Your task to perform on an android device: find photos in the google photos app Image 0: 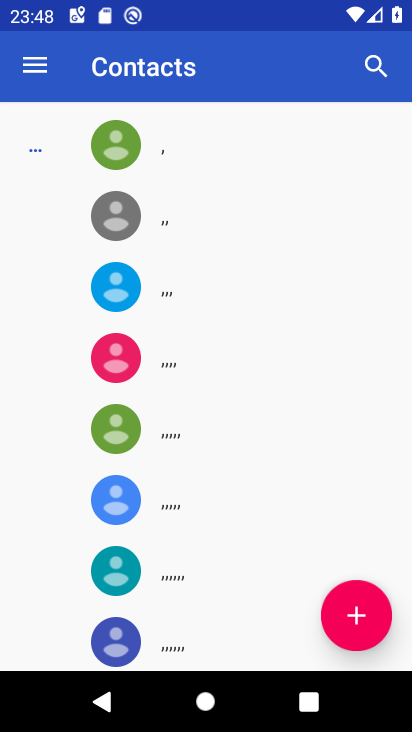
Step 0: press home button
Your task to perform on an android device: find photos in the google photos app Image 1: 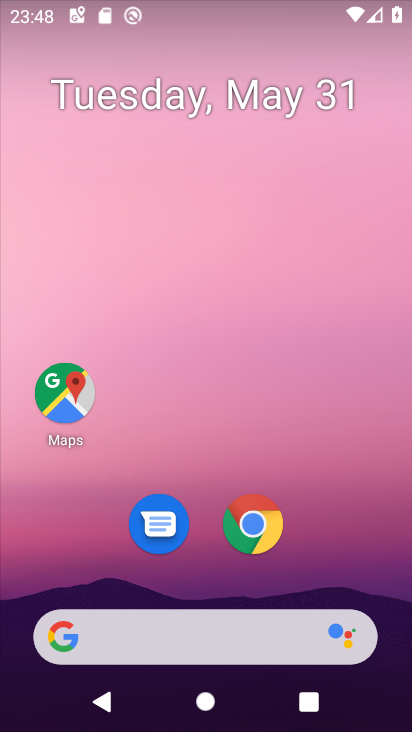
Step 1: drag from (346, 573) to (265, 88)
Your task to perform on an android device: find photos in the google photos app Image 2: 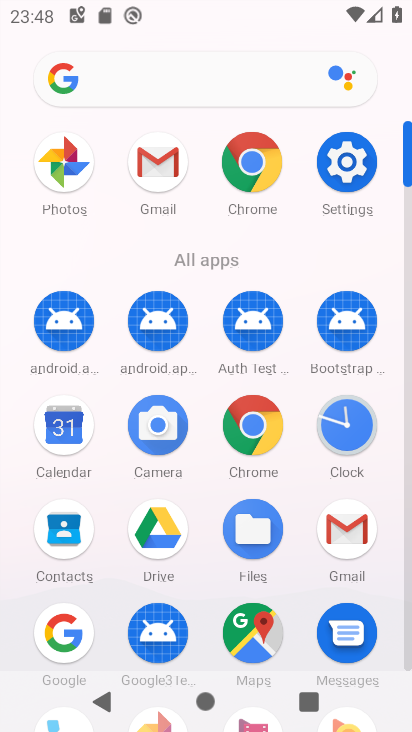
Step 2: click (74, 158)
Your task to perform on an android device: find photos in the google photos app Image 3: 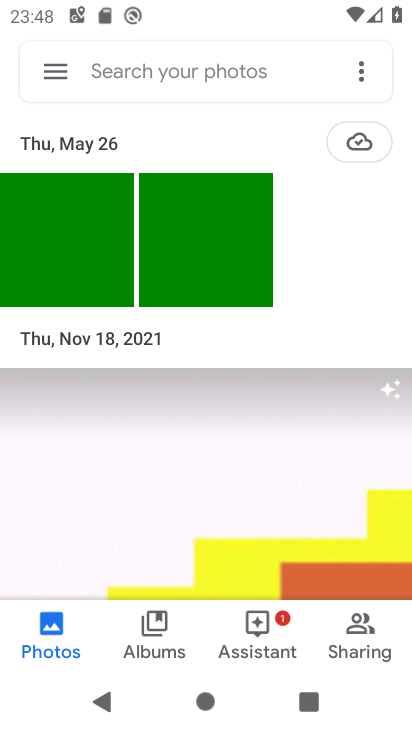
Step 3: click (44, 624)
Your task to perform on an android device: find photos in the google photos app Image 4: 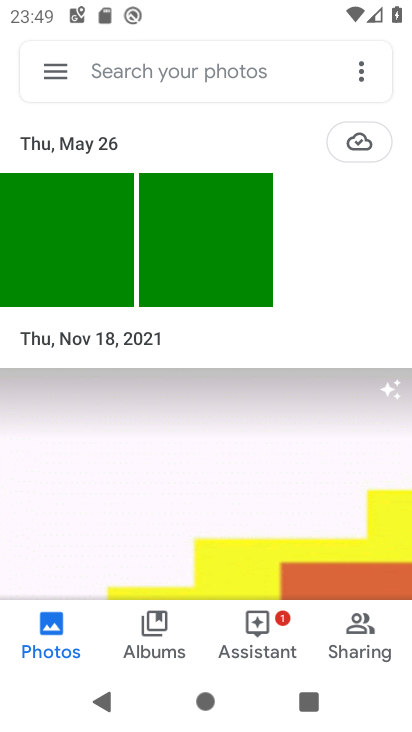
Step 4: task complete